Your task to perform on an android device: turn off notifications in google photos Image 0: 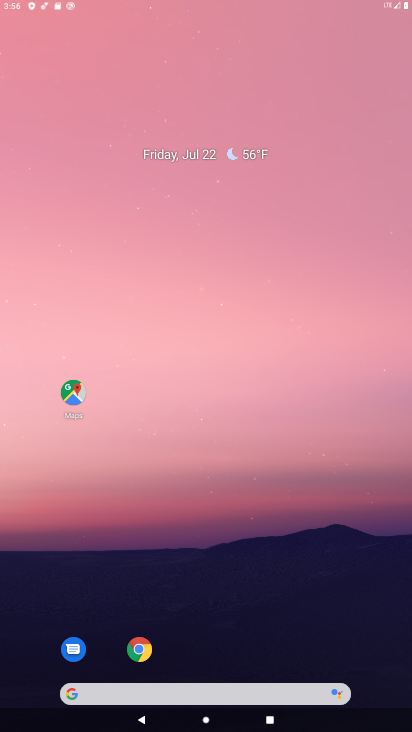
Step 0: drag from (164, 689) to (140, 80)
Your task to perform on an android device: turn off notifications in google photos Image 1: 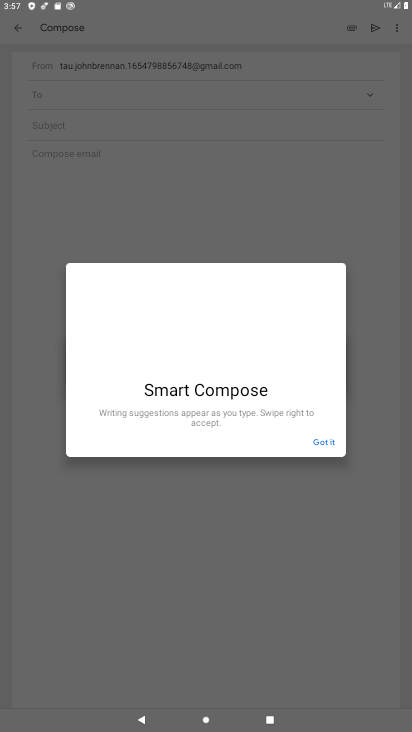
Step 1: click (327, 447)
Your task to perform on an android device: turn off notifications in google photos Image 2: 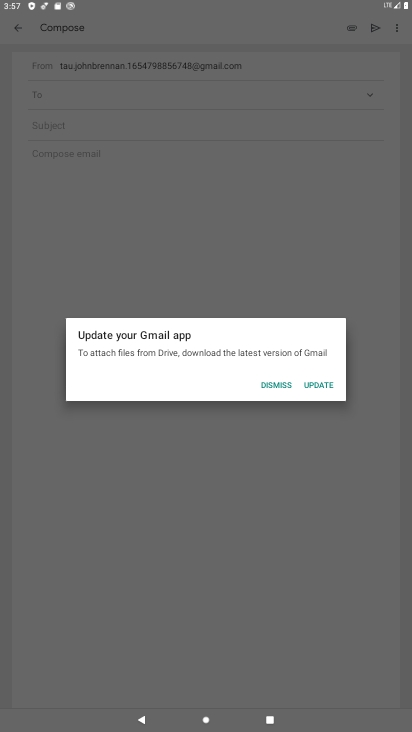
Step 2: click (260, 387)
Your task to perform on an android device: turn off notifications in google photos Image 3: 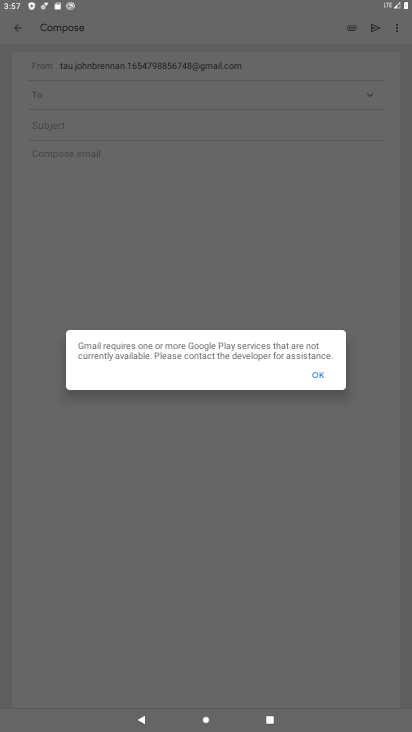
Step 3: click (319, 365)
Your task to perform on an android device: turn off notifications in google photos Image 4: 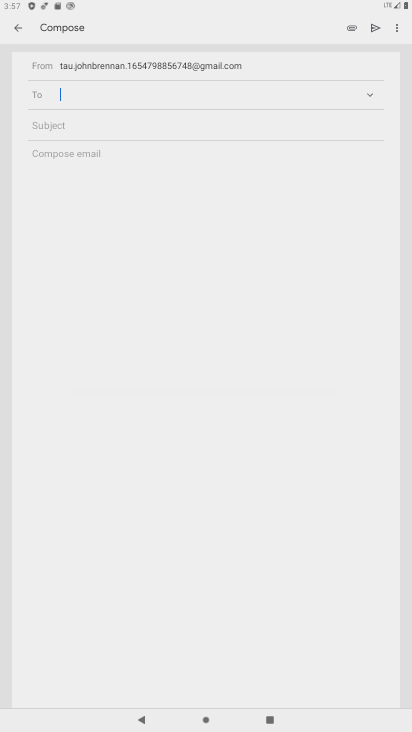
Step 4: click (318, 367)
Your task to perform on an android device: turn off notifications in google photos Image 5: 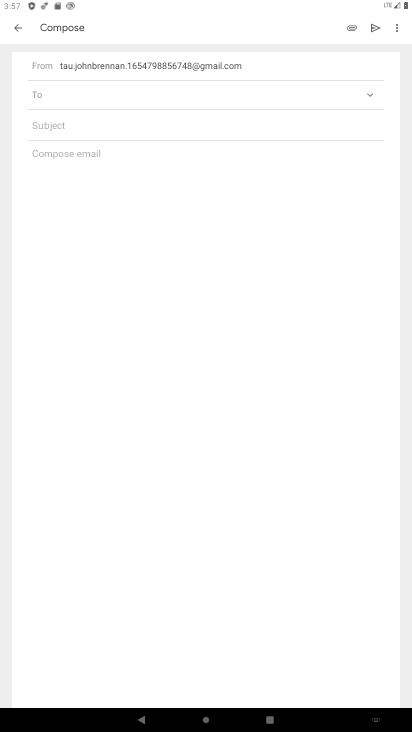
Step 5: click (12, 32)
Your task to perform on an android device: turn off notifications in google photos Image 6: 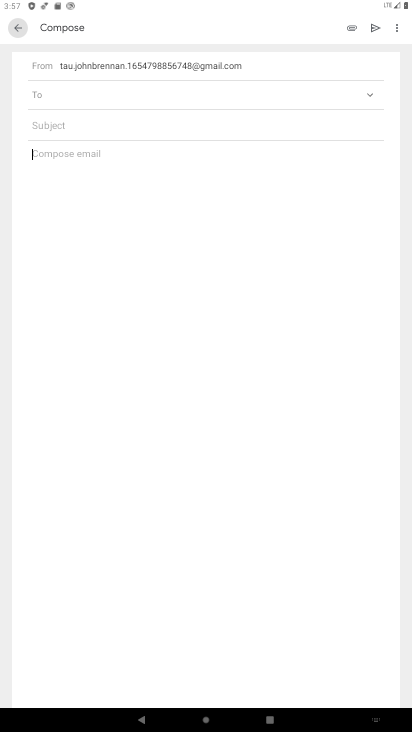
Step 6: click (12, 31)
Your task to perform on an android device: turn off notifications in google photos Image 7: 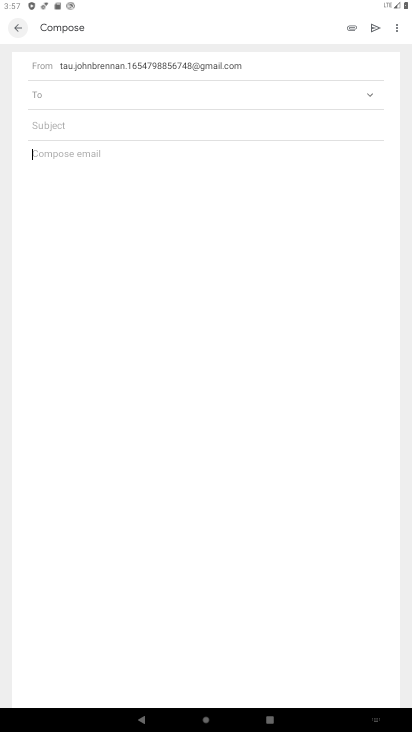
Step 7: click (12, 31)
Your task to perform on an android device: turn off notifications in google photos Image 8: 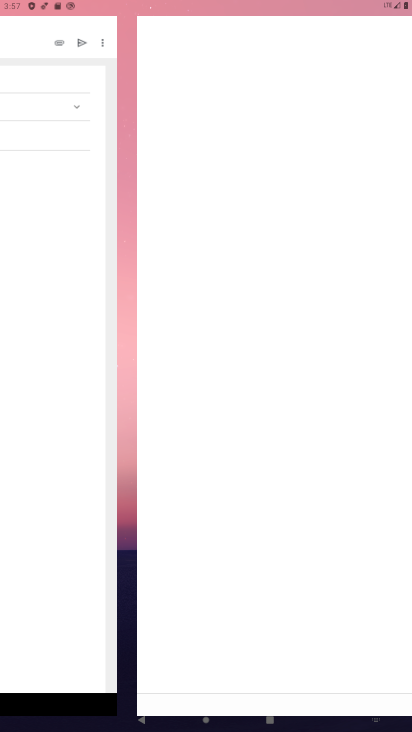
Step 8: click (12, 31)
Your task to perform on an android device: turn off notifications in google photos Image 9: 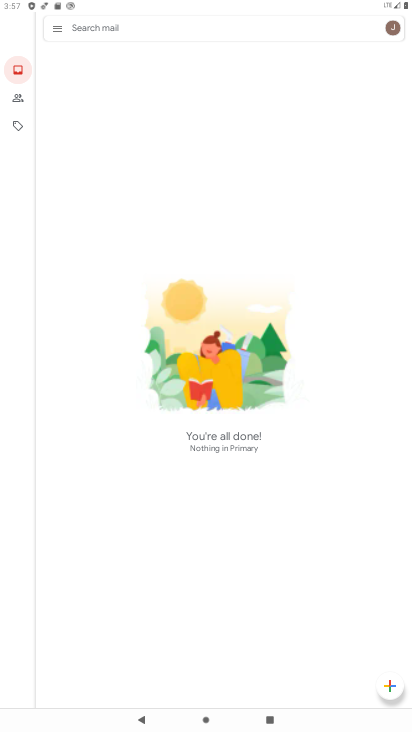
Step 9: press back button
Your task to perform on an android device: turn off notifications in google photos Image 10: 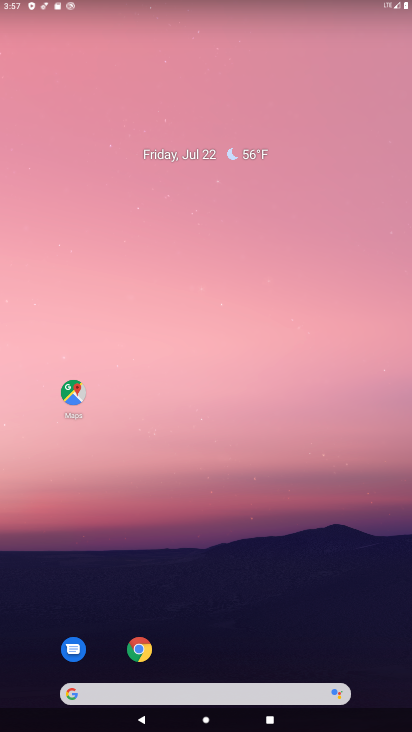
Step 10: drag from (266, 658) to (171, 195)
Your task to perform on an android device: turn off notifications in google photos Image 11: 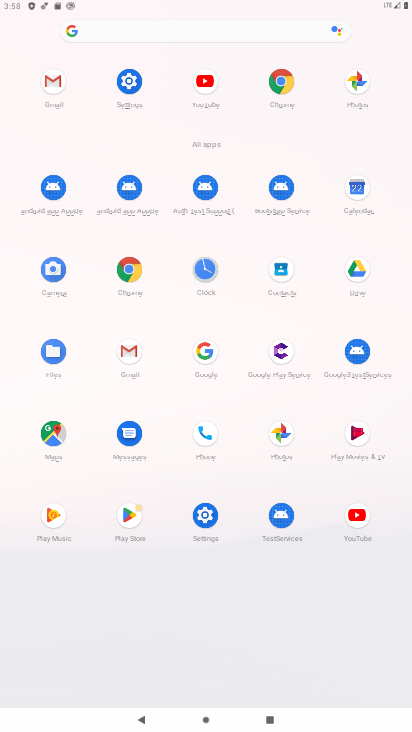
Step 11: click (276, 425)
Your task to perform on an android device: turn off notifications in google photos Image 12: 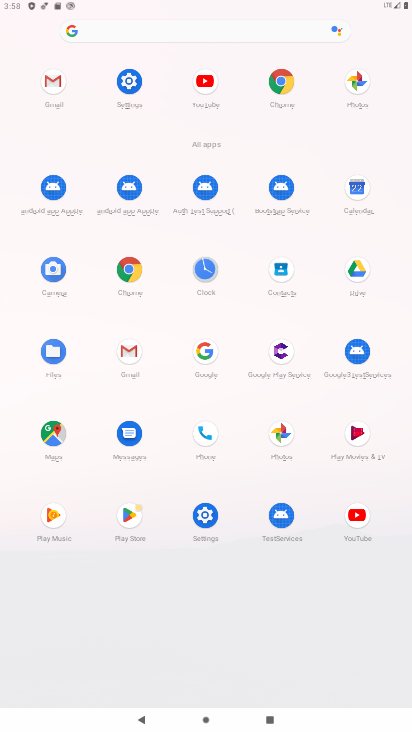
Step 12: click (276, 425)
Your task to perform on an android device: turn off notifications in google photos Image 13: 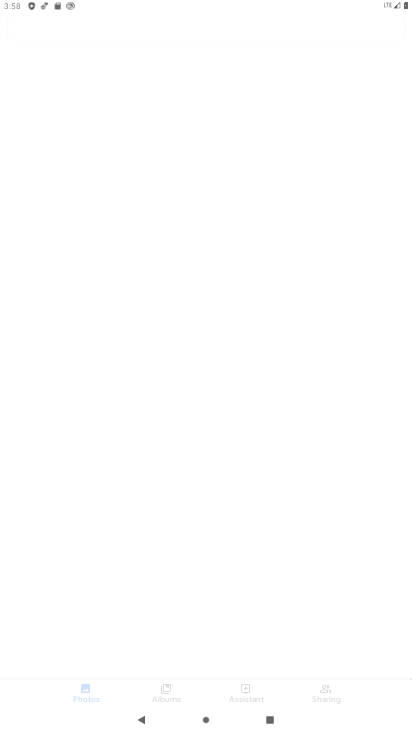
Step 13: click (278, 425)
Your task to perform on an android device: turn off notifications in google photos Image 14: 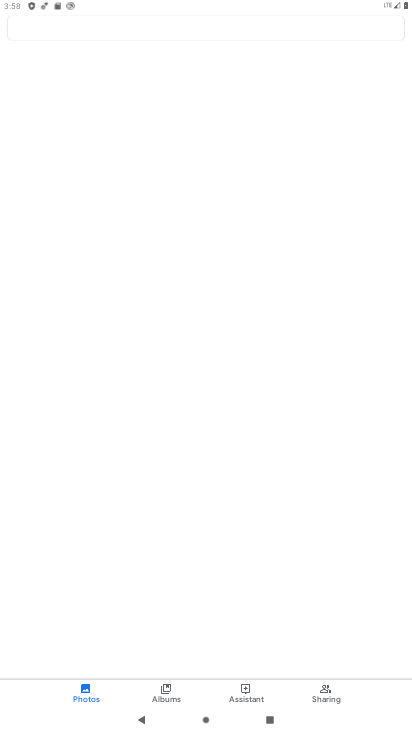
Step 14: click (279, 425)
Your task to perform on an android device: turn off notifications in google photos Image 15: 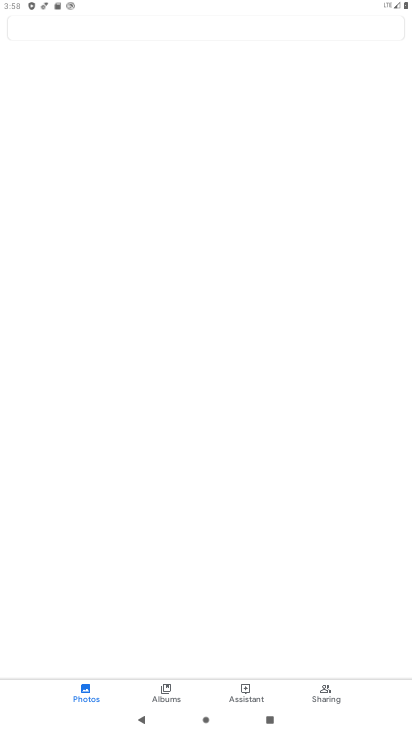
Step 15: click (283, 429)
Your task to perform on an android device: turn off notifications in google photos Image 16: 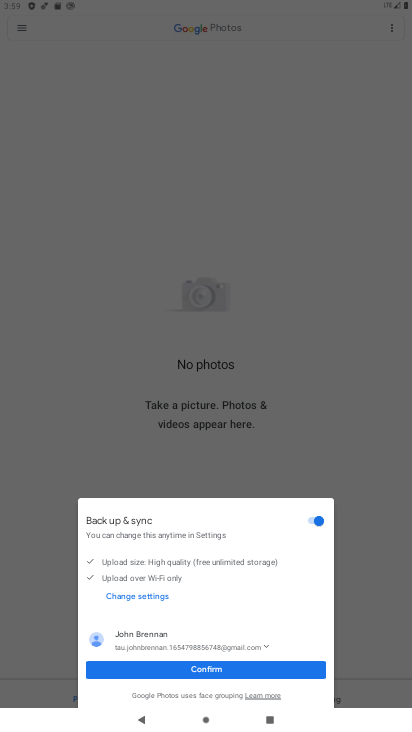
Step 16: click (210, 398)
Your task to perform on an android device: turn off notifications in google photos Image 17: 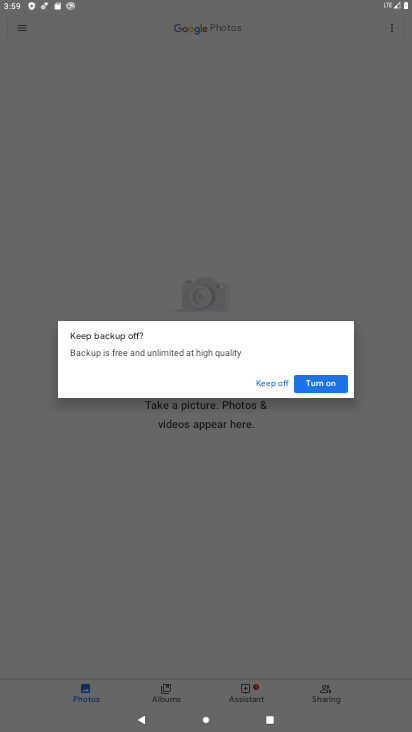
Step 17: click (208, 665)
Your task to perform on an android device: turn off notifications in google photos Image 18: 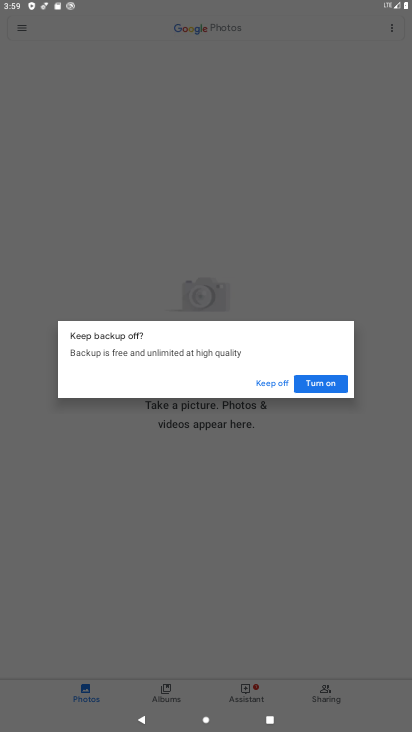
Step 18: click (209, 666)
Your task to perform on an android device: turn off notifications in google photos Image 19: 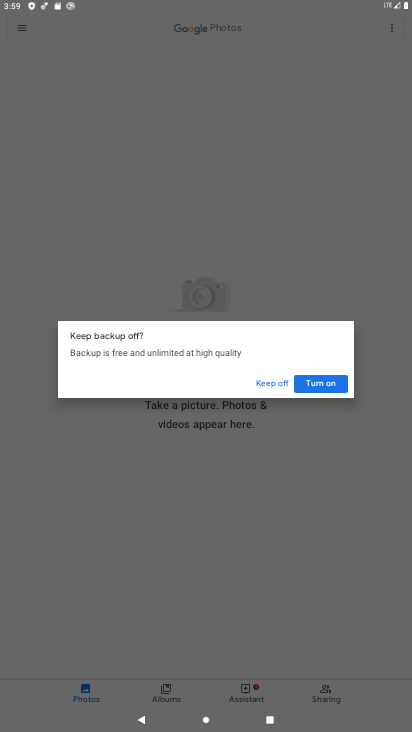
Step 19: click (206, 666)
Your task to perform on an android device: turn off notifications in google photos Image 20: 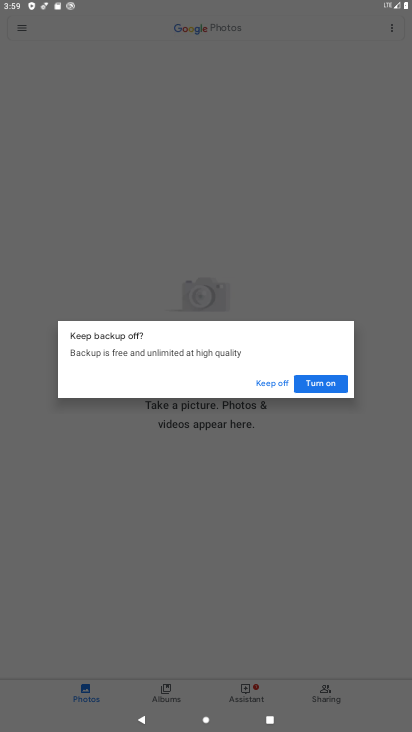
Step 20: click (298, 382)
Your task to perform on an android device: turn off notifications in google photos Image 21: 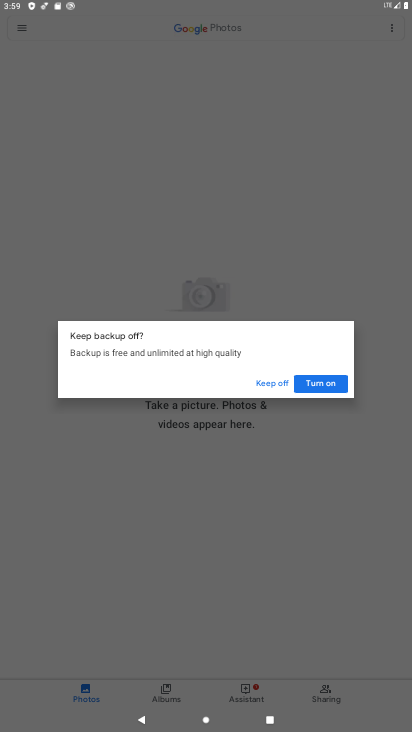
Step 21: click (285, 381)
Your task to perform on an android device: turn off notifications in google photos Image 22: 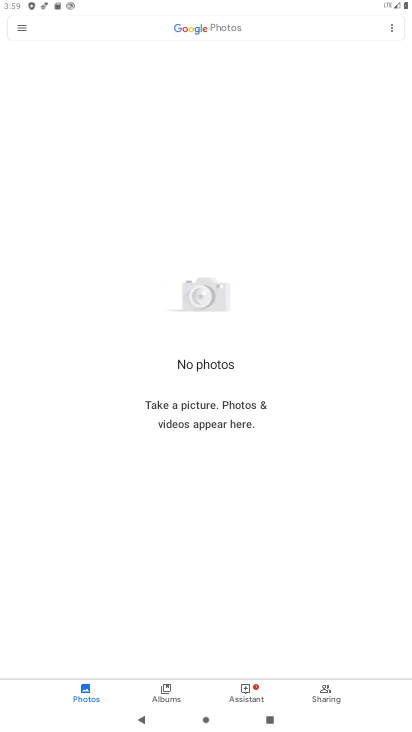
Step 22: click (281, 381)
Your task to perform on an android device: turn off notifications in google photos Image 23: 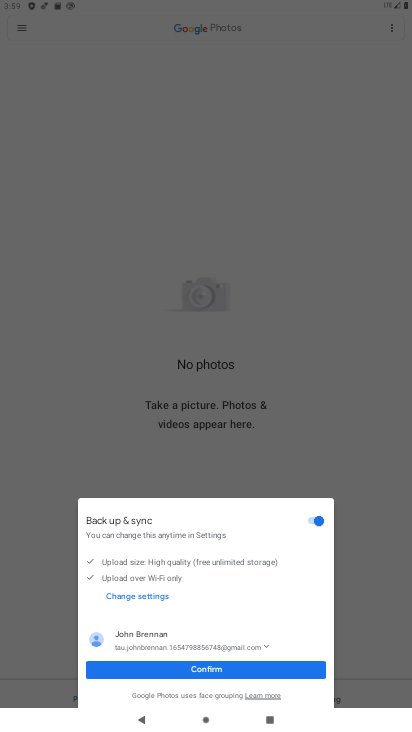
Step 23: click (279, 384)
Your task to perform on an android device: turn off notifications in google photos Image 24: 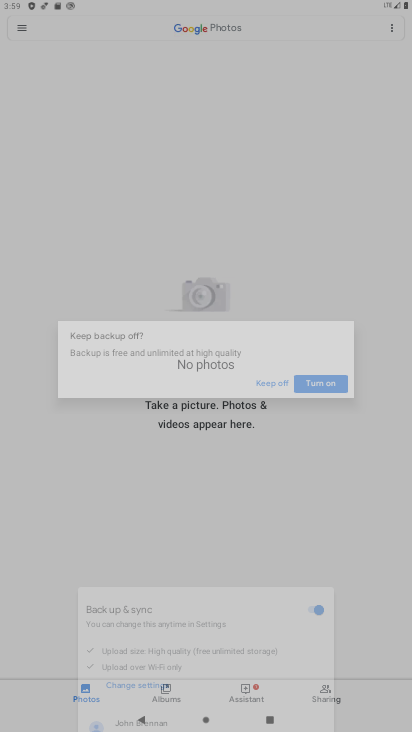
Step 24: click (274, 375)
Your task to perform on an android device: turn off notifications in google photos Image 25: 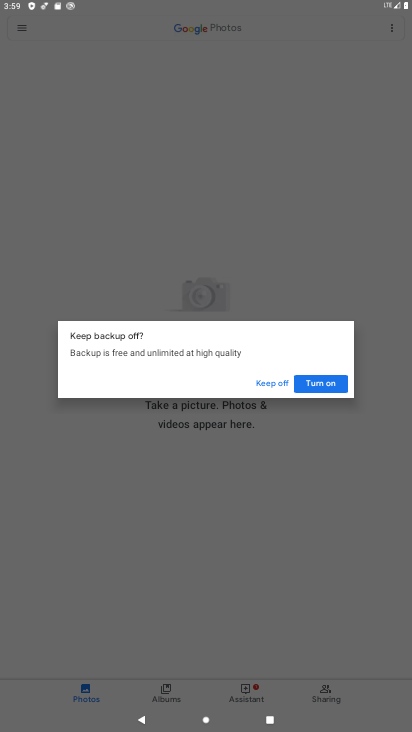
Step 25: click (277, 375)
Your task to perform on an android device: turn off notifications in google photos Image 26: 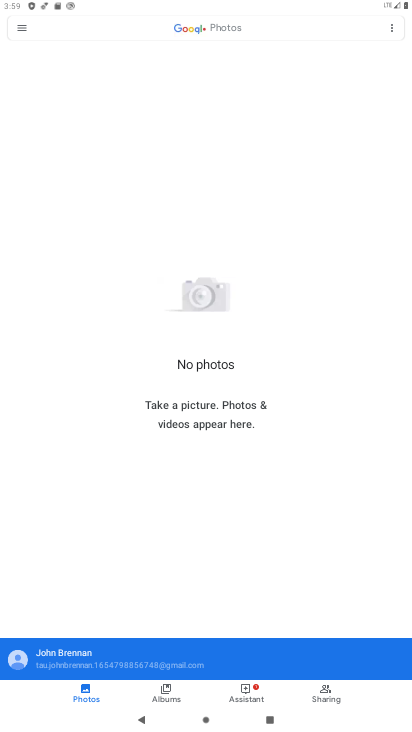
Step 26: click (217, 220)
Your task to perform on an android device: turn off notifications in google photos Image 27: 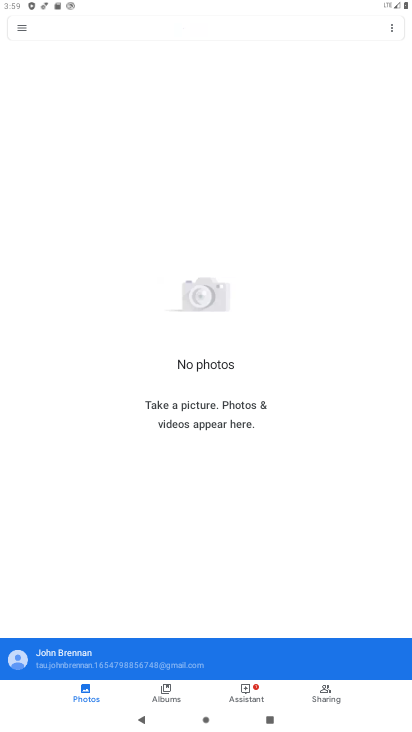
Step 27: drag from (219, 431) to (192, 146)
Your task to perform on an android device: turn off notifications in google photos Image 28: 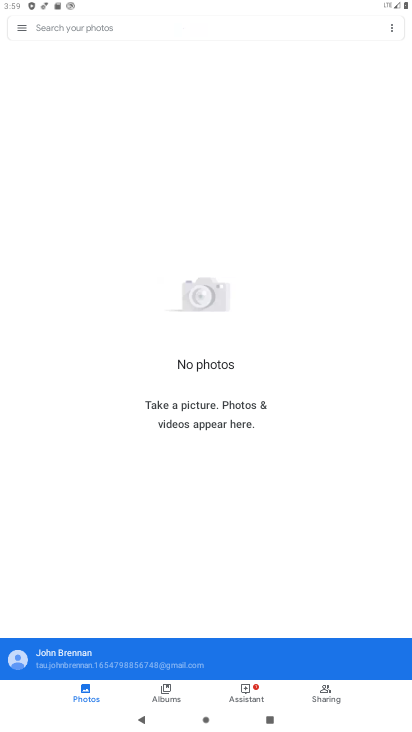
Step 28: drag from (199, 71) to (257, 69)
Your task to perform on an android device: turn off notifications in google photos Image 29: 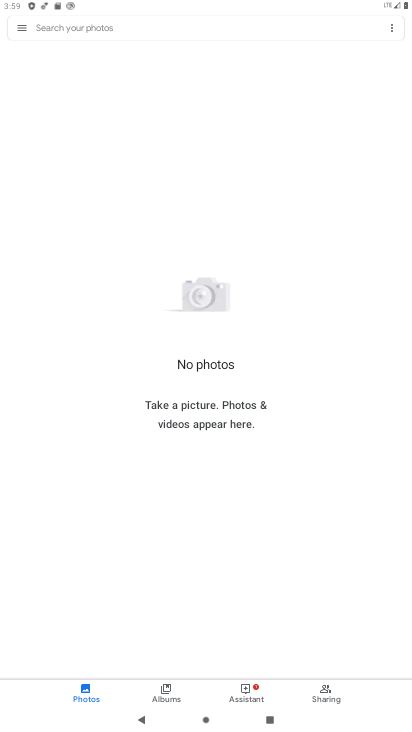
Step 29: drag from (211, 491) to (147, 101)
Your task to perform on an android device: turn off notifications in google photos Image 30: 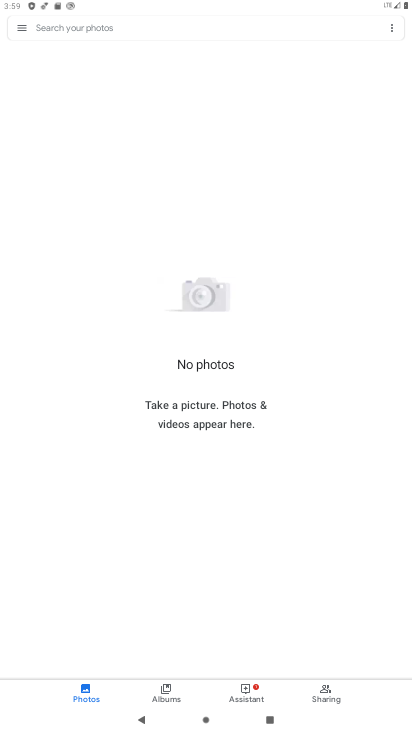
Step 30: click (16, 24)
Your task to perform on an android device: turn off notifications in google photos Image 31: 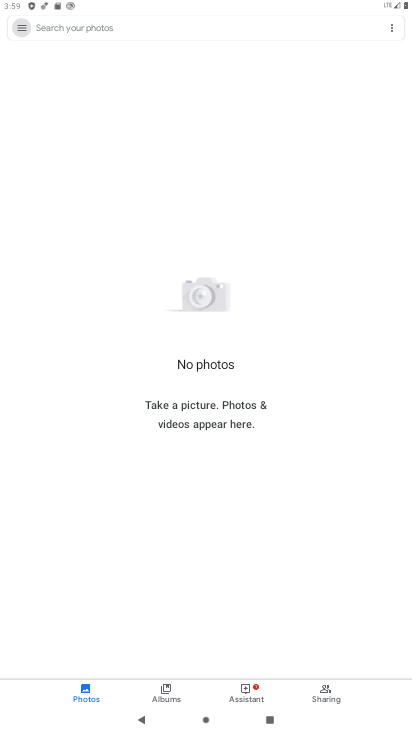
Step 31: click (15, 27)
Your task to perform on an android device: turn off notifications in google photos Image 32: 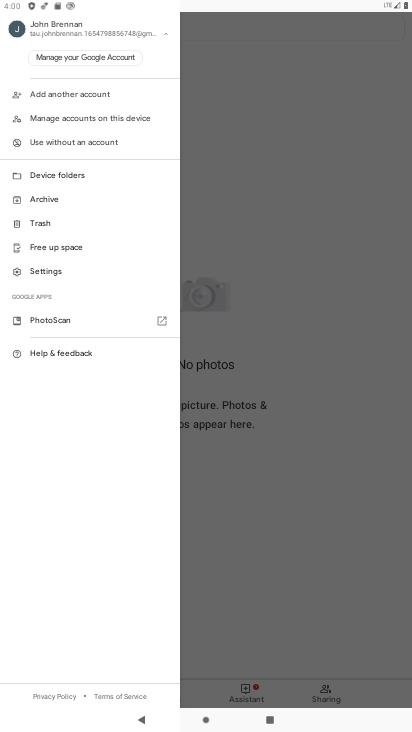
Step 32: click (39, 278)
Your task to perform on an android device: turn off notifications in google photos Image 33: 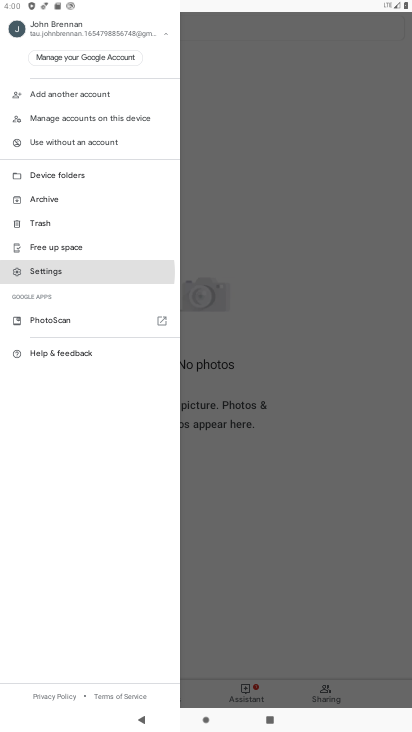
Step 33: click (68, 292)
Your task to perform on an android device: turn off notifications in google photos Image 34: 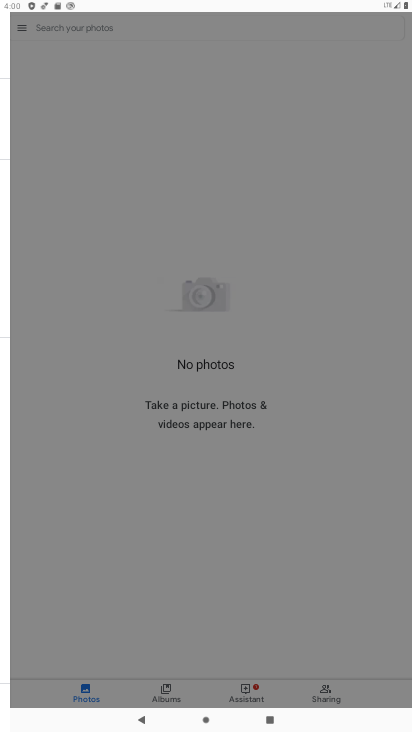
Step 34: click (57, 273)
Your task to perform on an android device: turn off notifications in google photos Image 35: 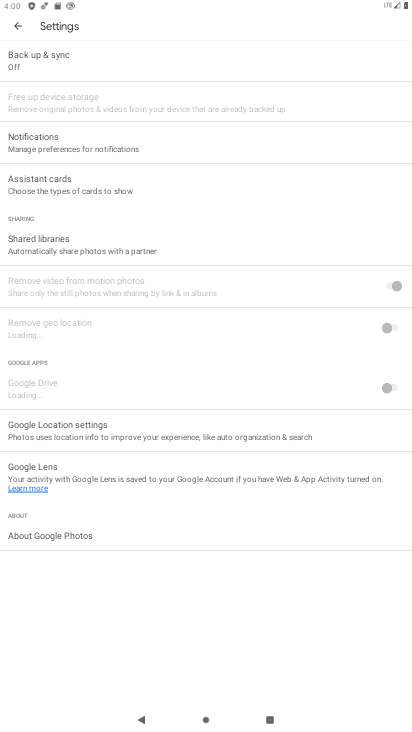
Step 35: click (54, 271)
Your task to perform on an android device: turn off notifications in google photos Image 36: 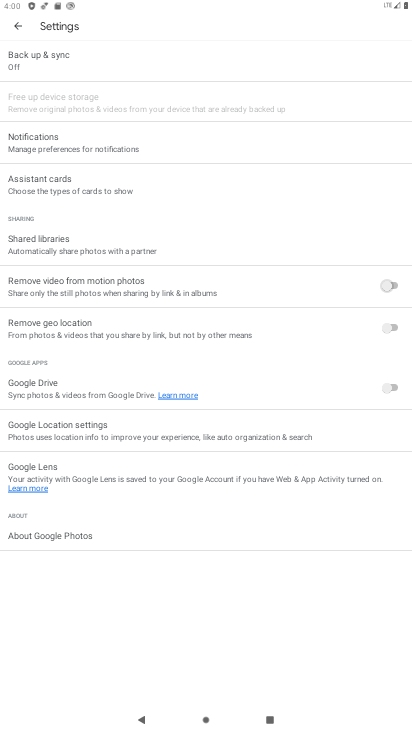
Step 36: click (54, 271)
Your task to perform on an android device: turn off notifications in google photos Image 37: 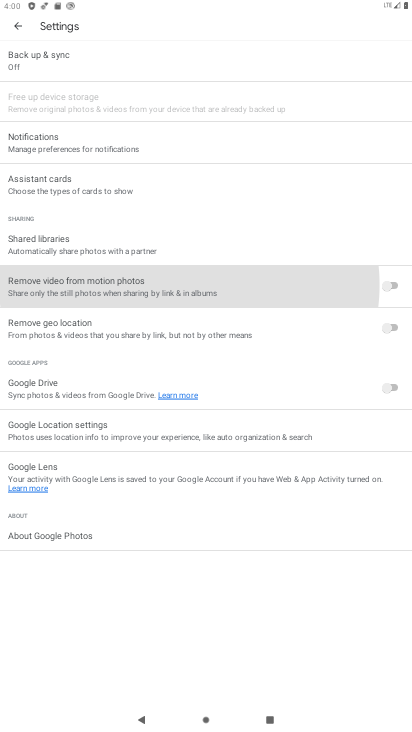
Step 37: click (54, 271)
Your task to perform on an android device: turn off notifications in google photos Image 38: 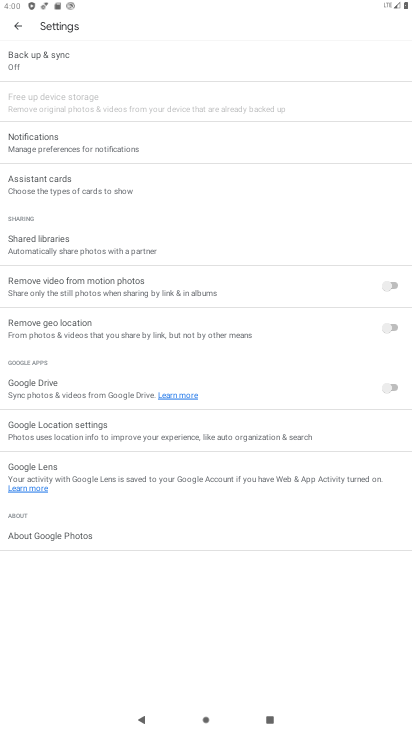
Step 38: task complete